Your task to perform on an android device: turn off airplane mode Image 0: 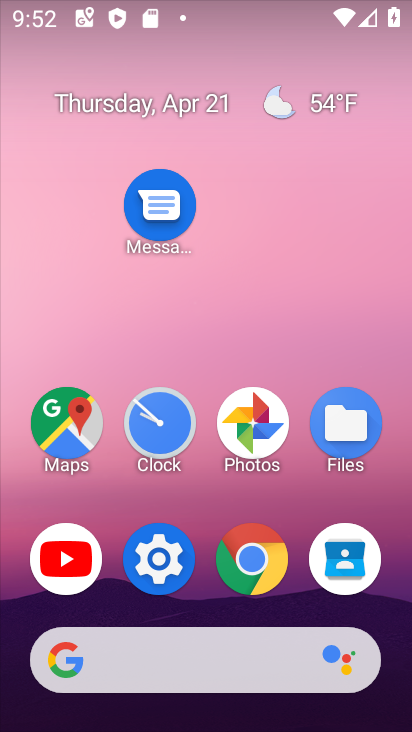
Step 0: click (158, 557)
Your task to perform on an android device: turn off airplane mode Image 1: 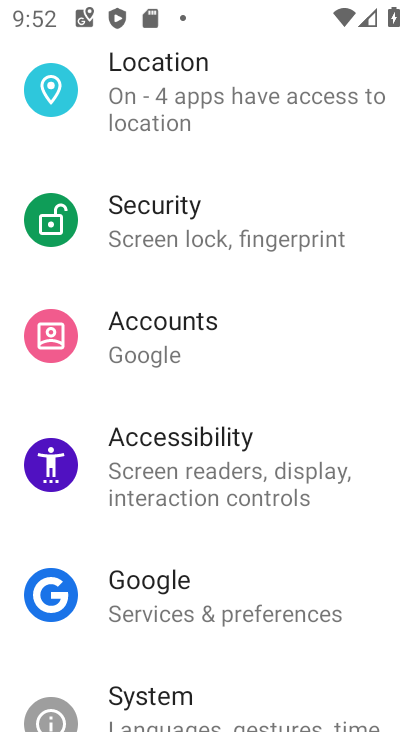
Step 1: drag from (275, 147) to (203, 721)
Your task to perform on an android device: turn off airplane mode Image 2: 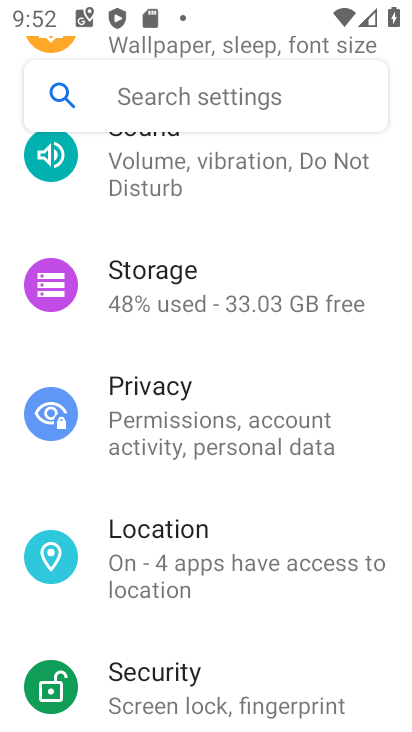
Step 2: drag from (304, 235) to (307, 686)
Your task to perform on an android device: turn off airplane mode Image 3: 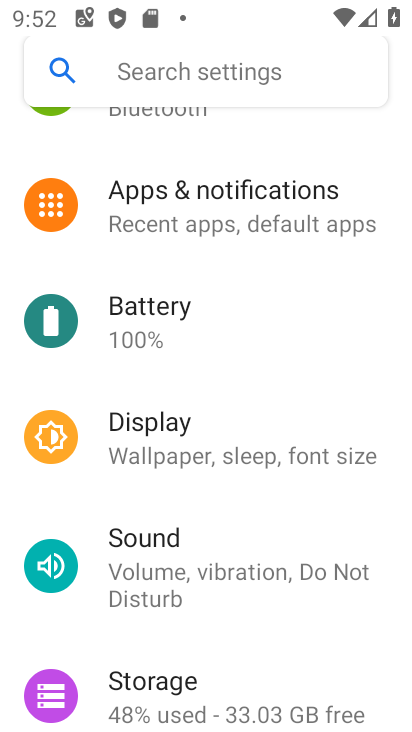
Step 3: drag from (282, 275) to (280, 729)
Your task to perform on an android device: turn off airplane mode Image 4: 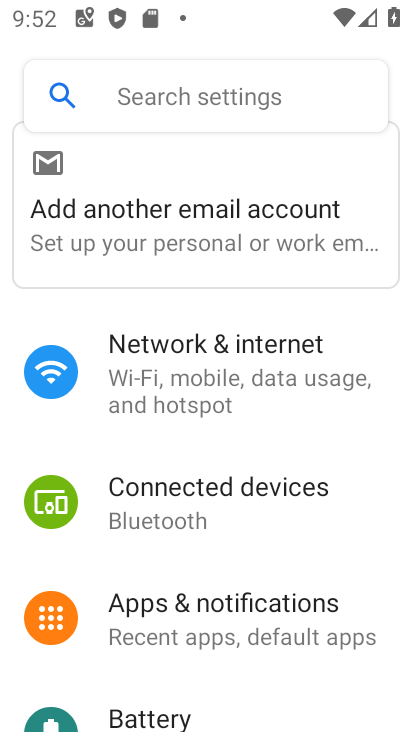
Step 4: click (175, 345)
Your task to perform on an android device: turn off airplane mode Image 5: 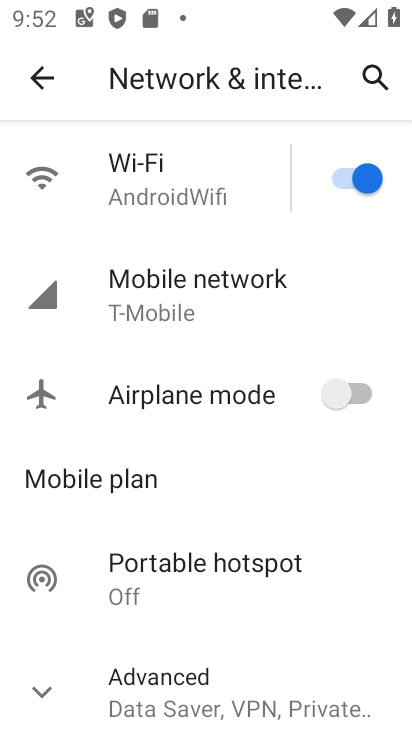
Step 5: task complete